Your task to perform on an android device: Open Google Image 0: 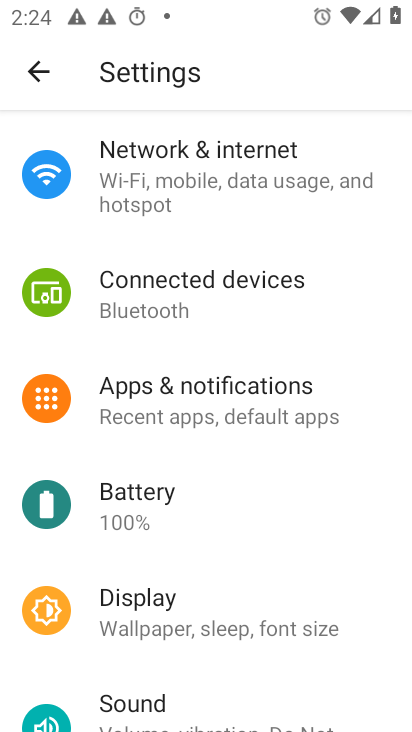
Step 0: press home button
Your task to perform on an android device: Open Google Image 1: 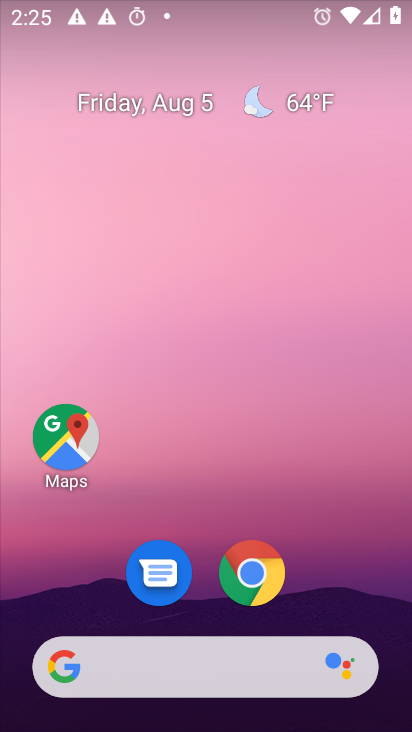
Step 1: drag from (372, 608) to (378, 244)
Your task to perform on an android device: Open Google Image 2: 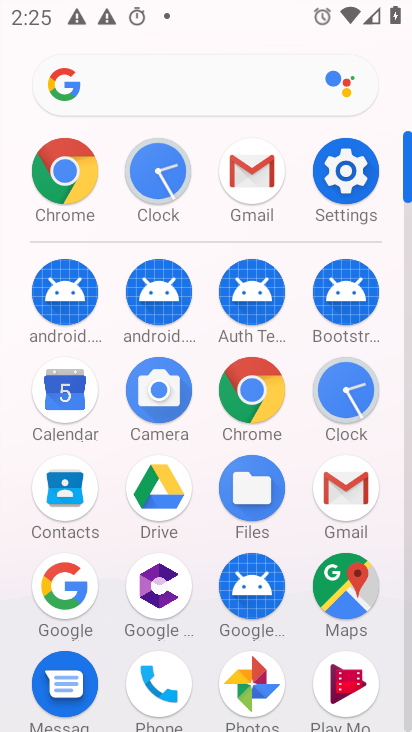
Step 2: click (68, 595)
Your task to perform on an android device: Open Google Image 3: 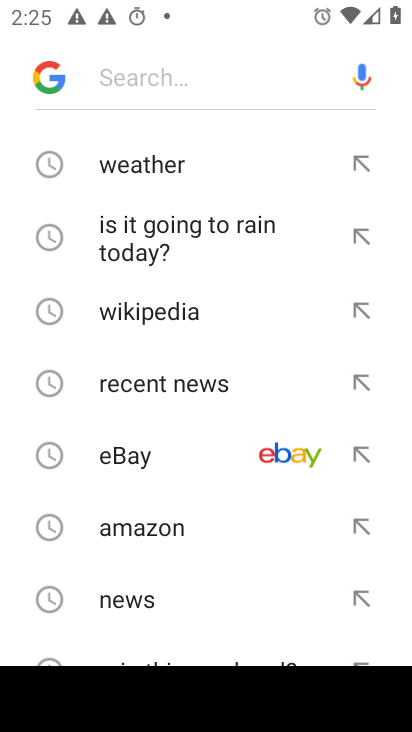
Step 3: task complete